Your task to perform on an android device: Go to notification settings Image 0: 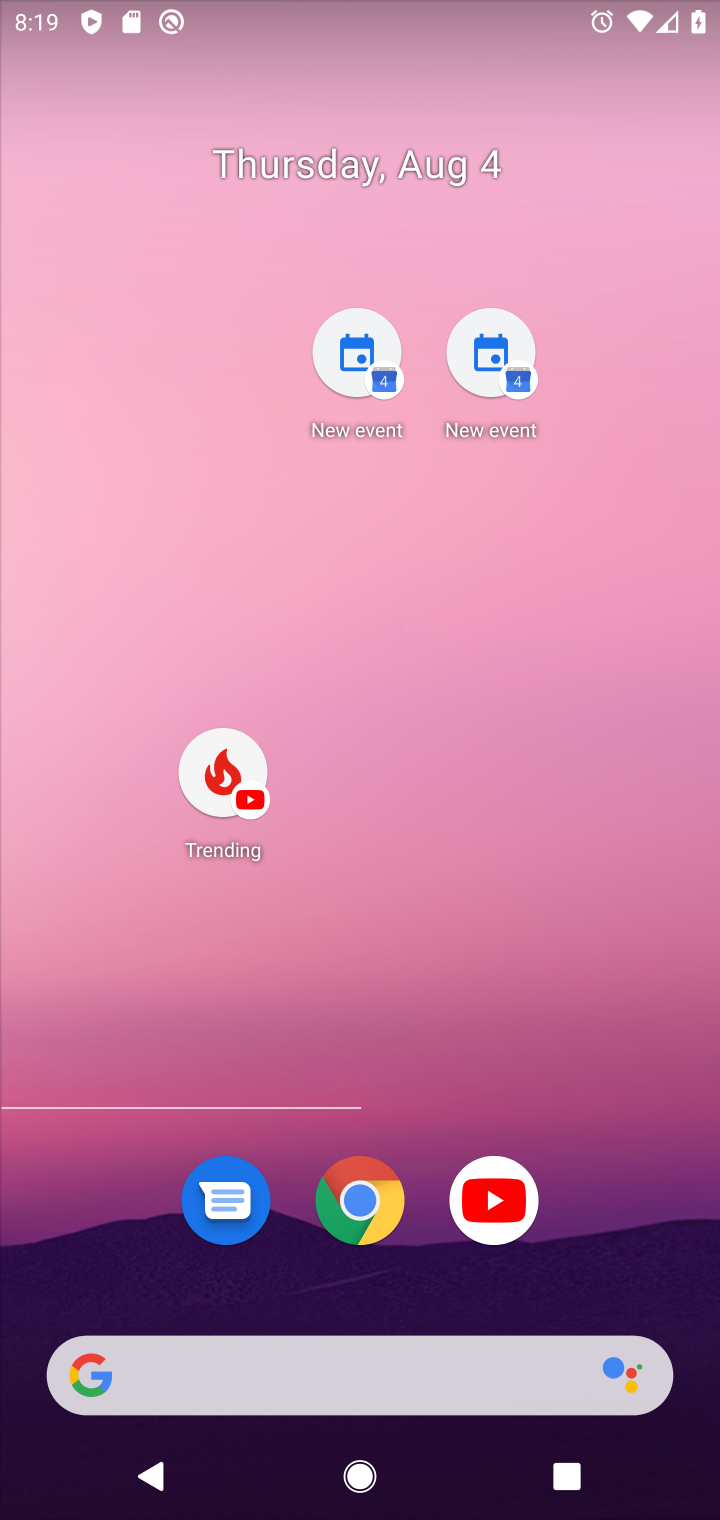
Step 0: press back button
Your task to perform on an android device: Go to notification settings Image 1: 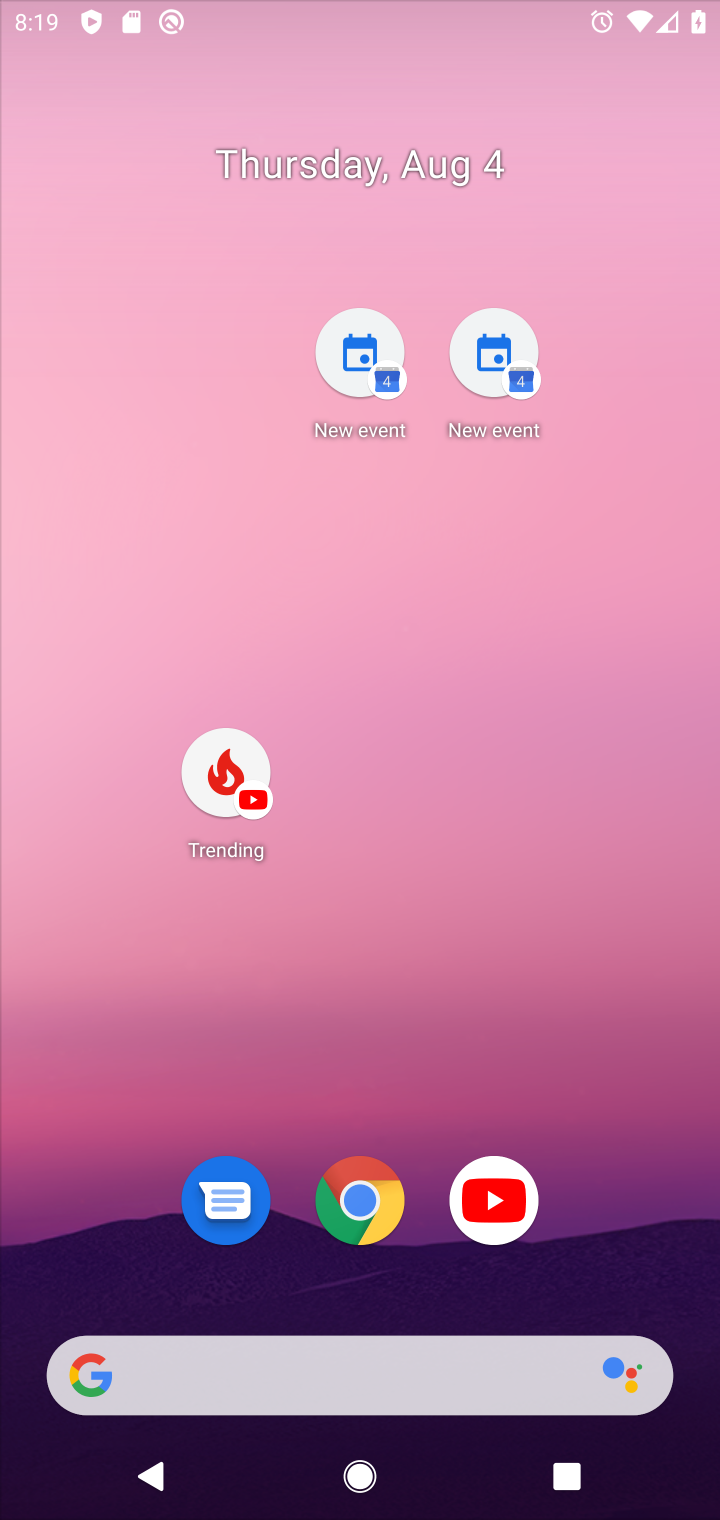
Step 1: press back button
Your task to perform on an android device: Go to notification settings Image 2: 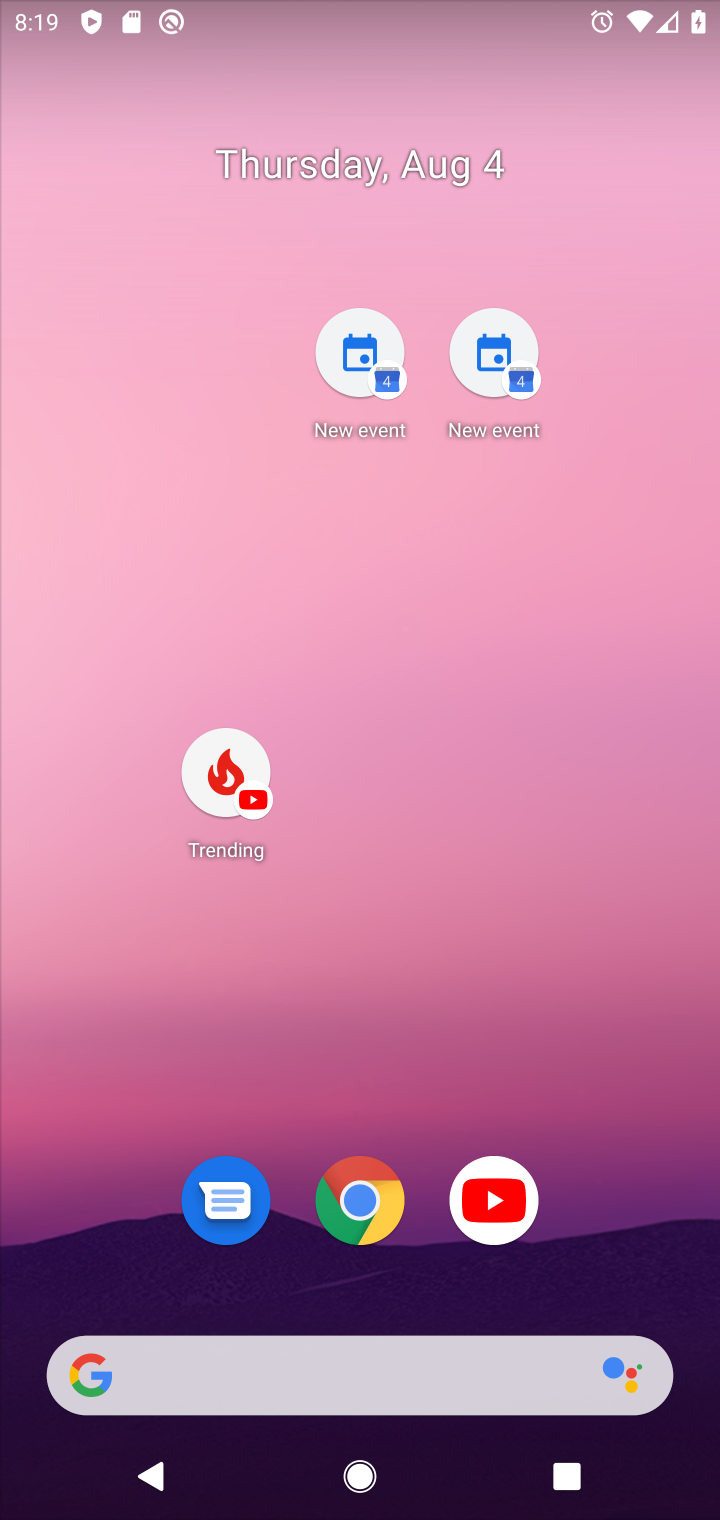
Step 2: press home button
Your task to perform on an android device: Go to notification settings Image 3: 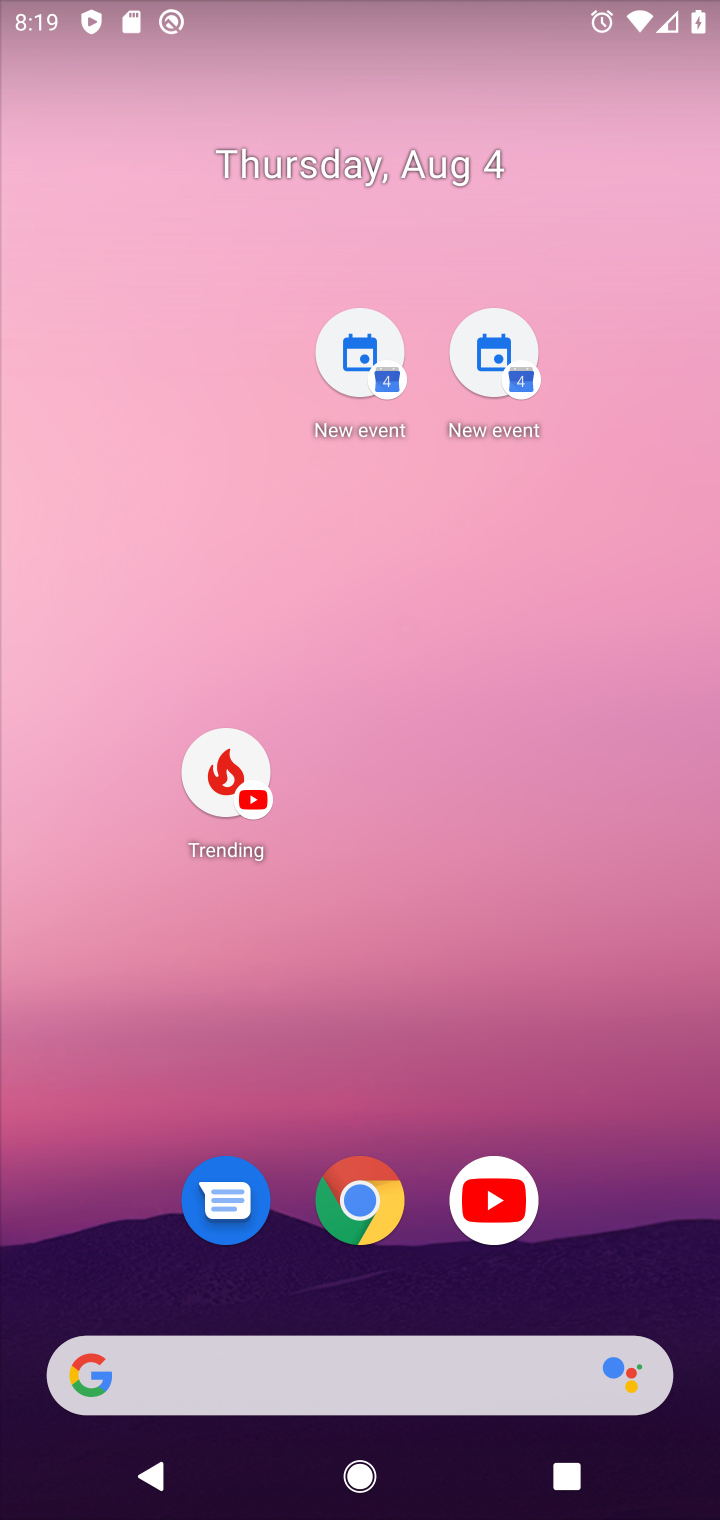
Step 3: click (301, 236)
Your task to perform on an android device: Go to notification settings Image 4: 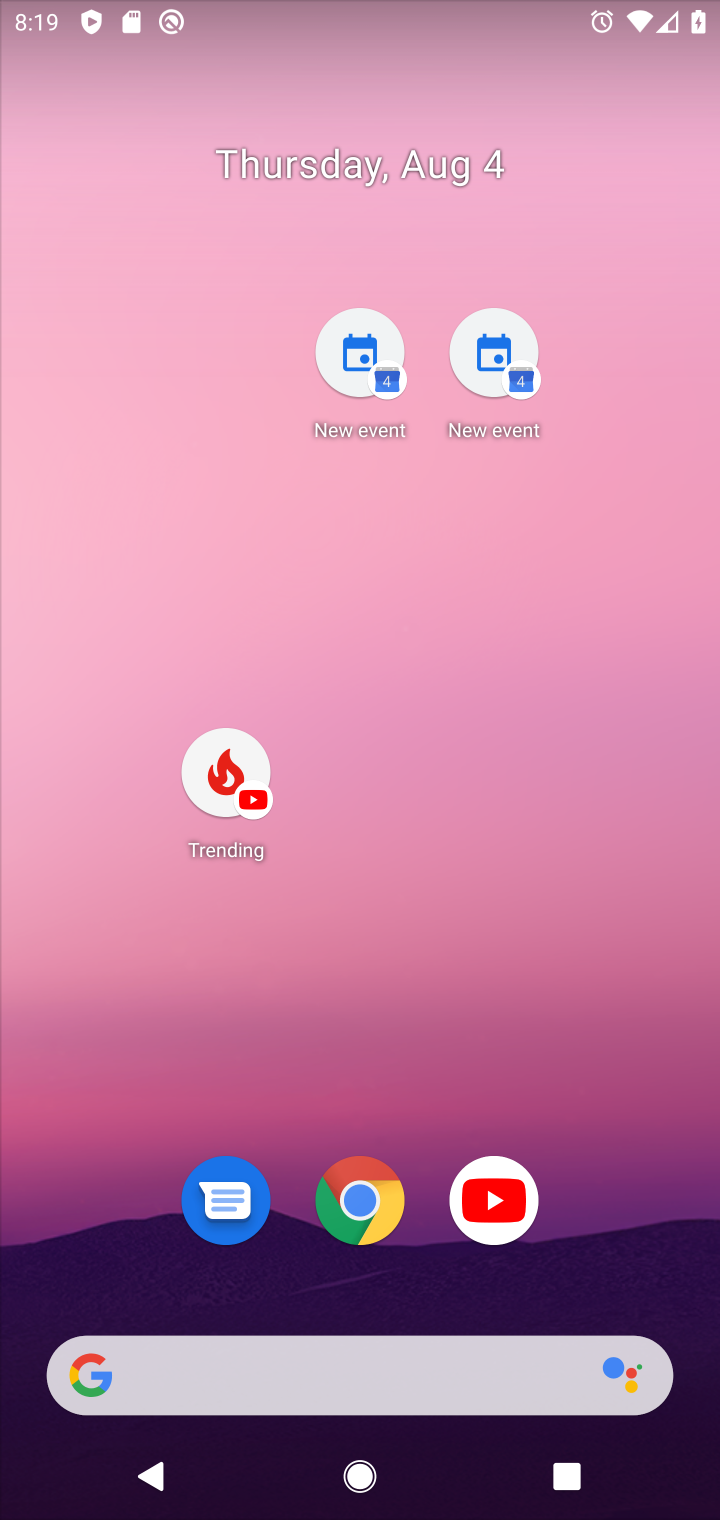
Step 4: click (238, 510)
Your task to perform on an android device: Go to notification settings Image 5: 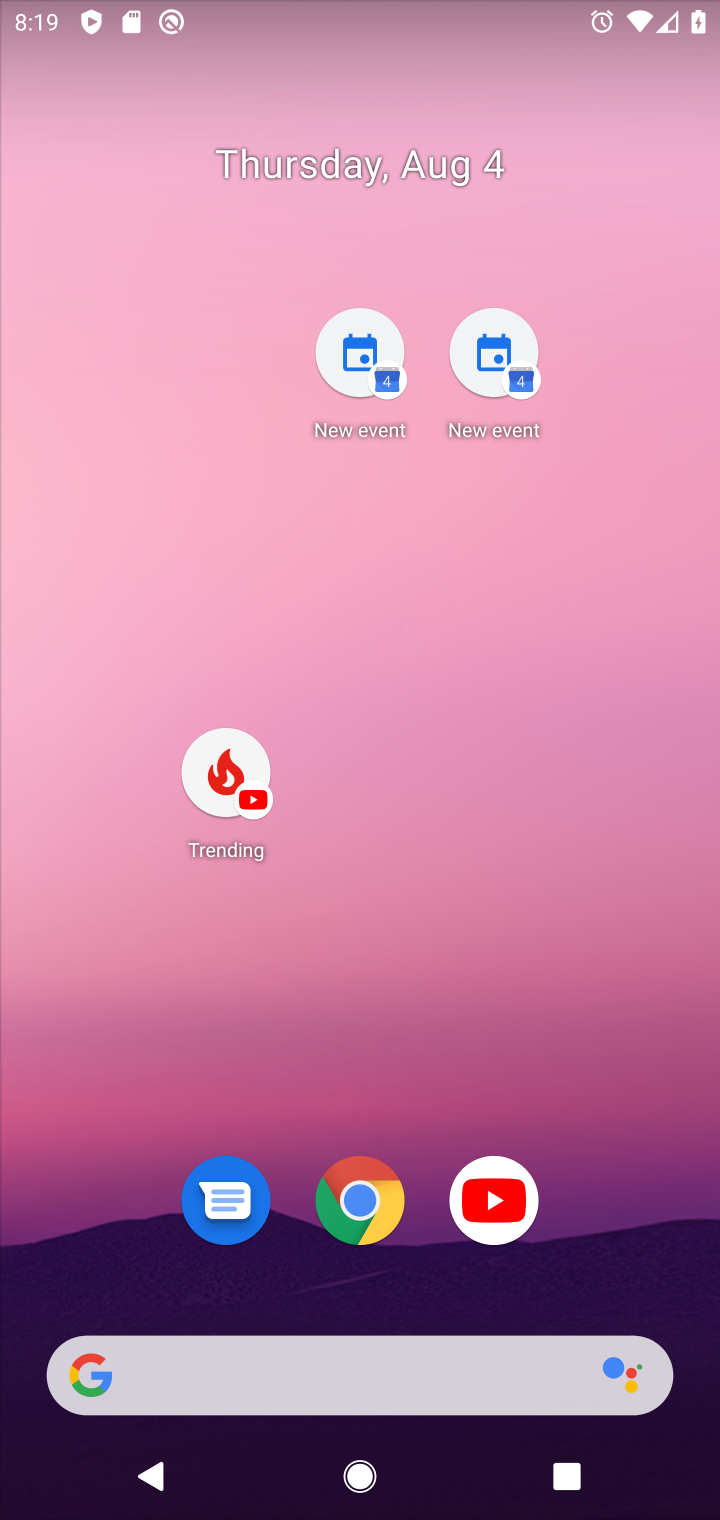
Step 5: drag from (456, 1293) to (329, 403)
Your task to perform on an android device: Go to notification settings Image 6: 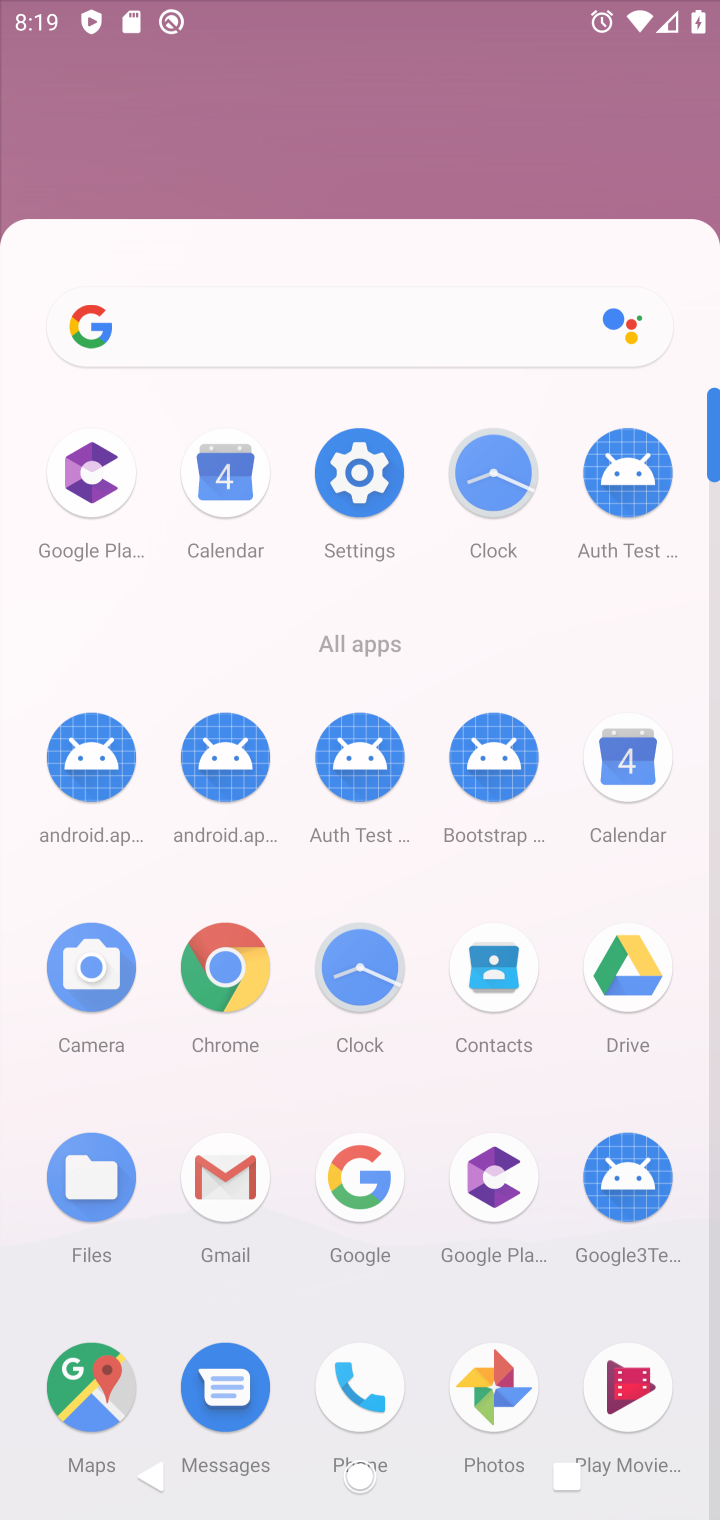
Step 6: drag from (449, 1393) to (166, 181)
Your task to perform on an android device: Go to notification settings Image 7: 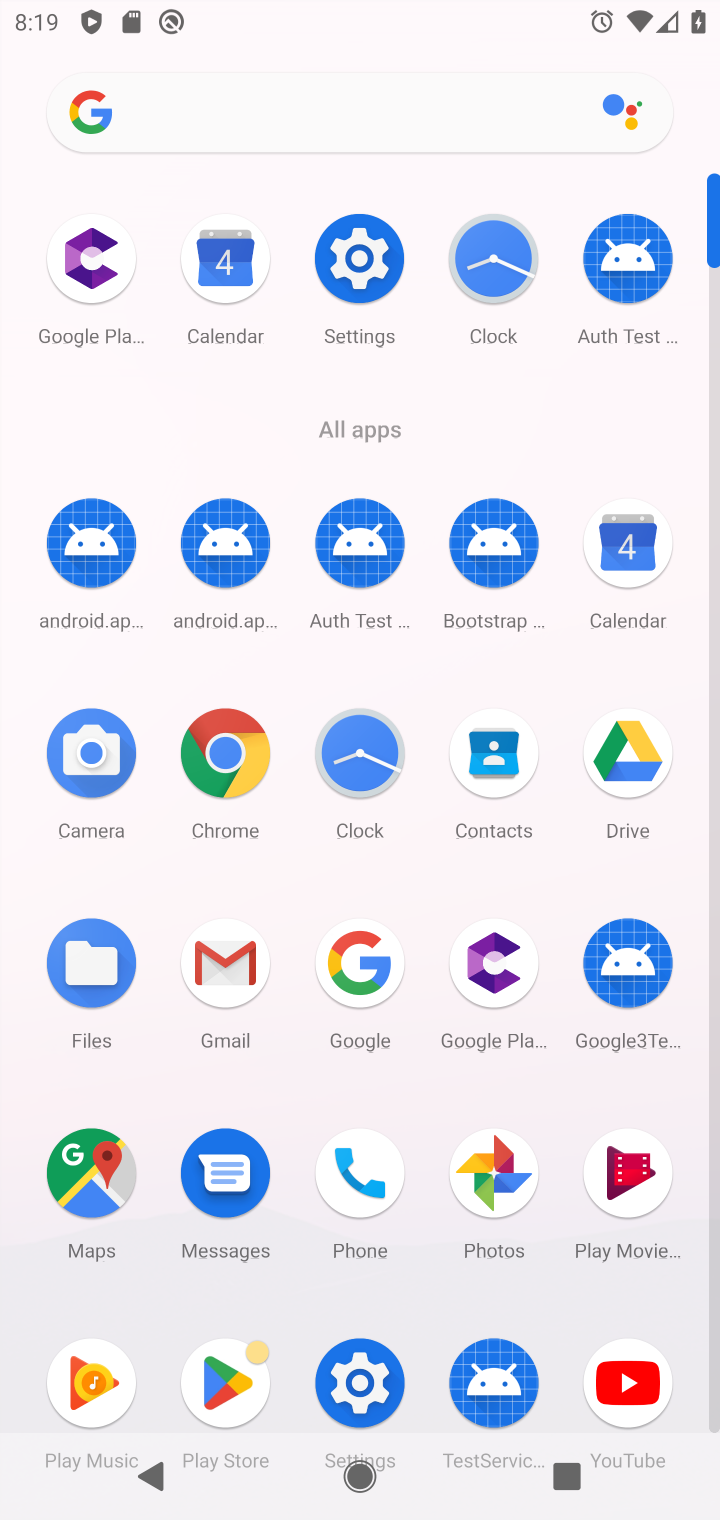
Step 7: click (357, 1376)
Your task to perform on an android device: Go to notification settings Image 8: 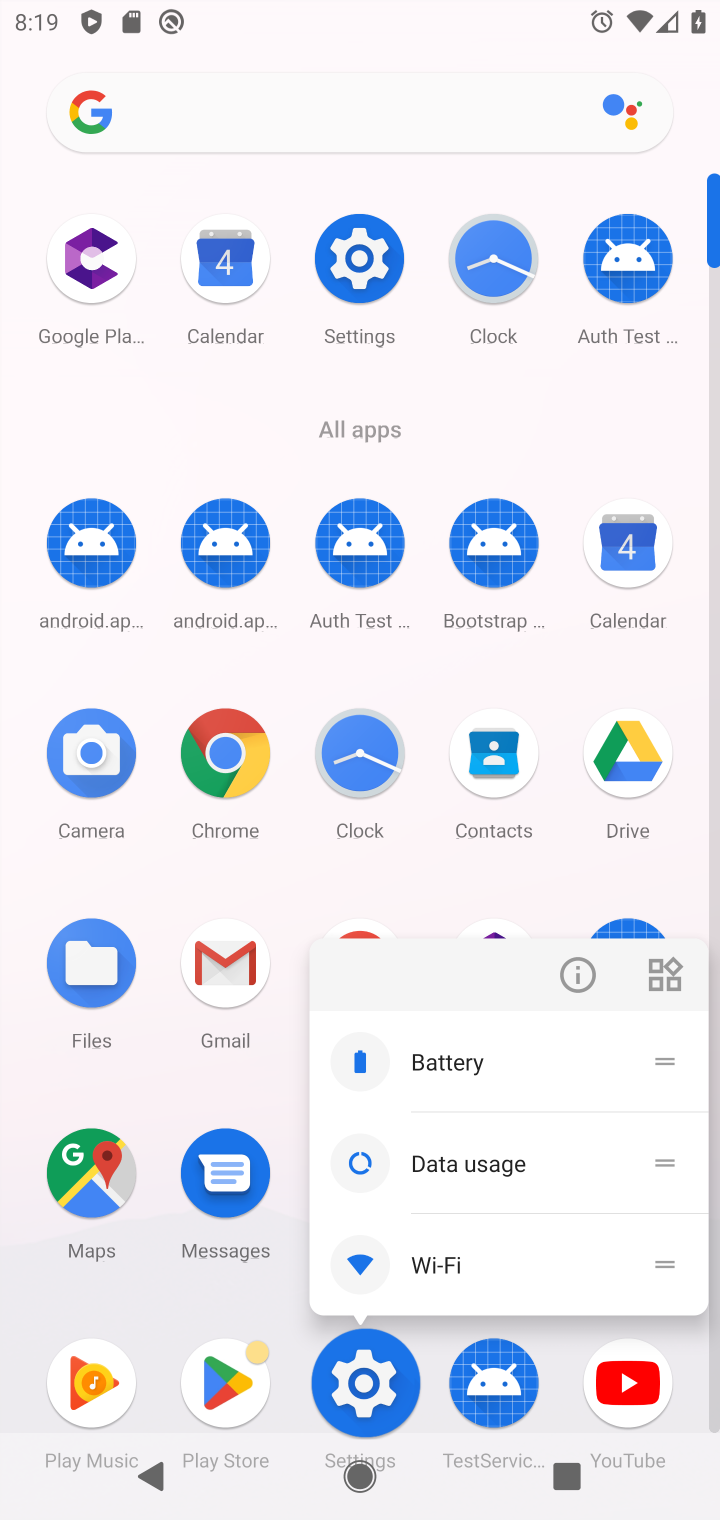
Step 8: click (363, 1376)
Your task to perform on an android device: Go to notification settings Image 9: 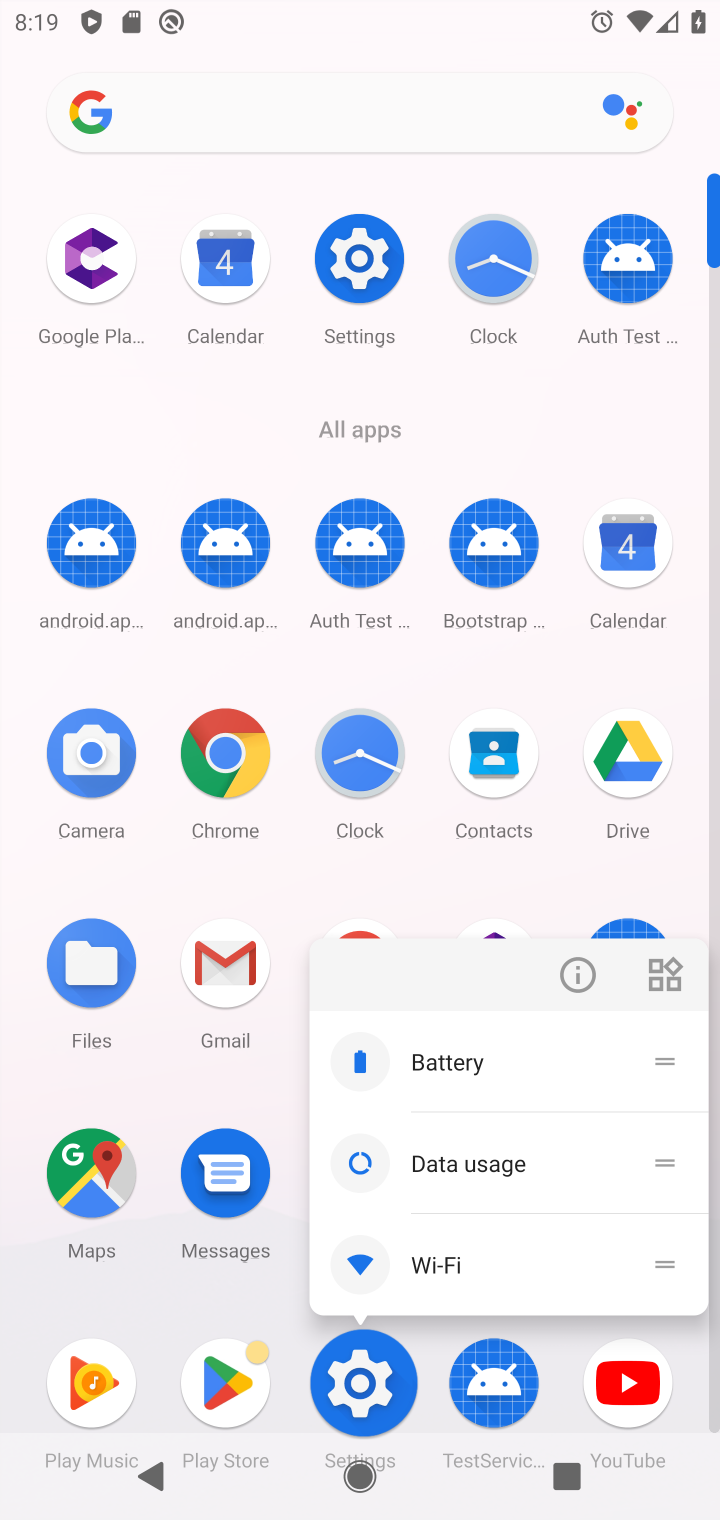
Step 9: click (370, 1383)
Your task to perform on an android device: Go to notification settings Image 10: 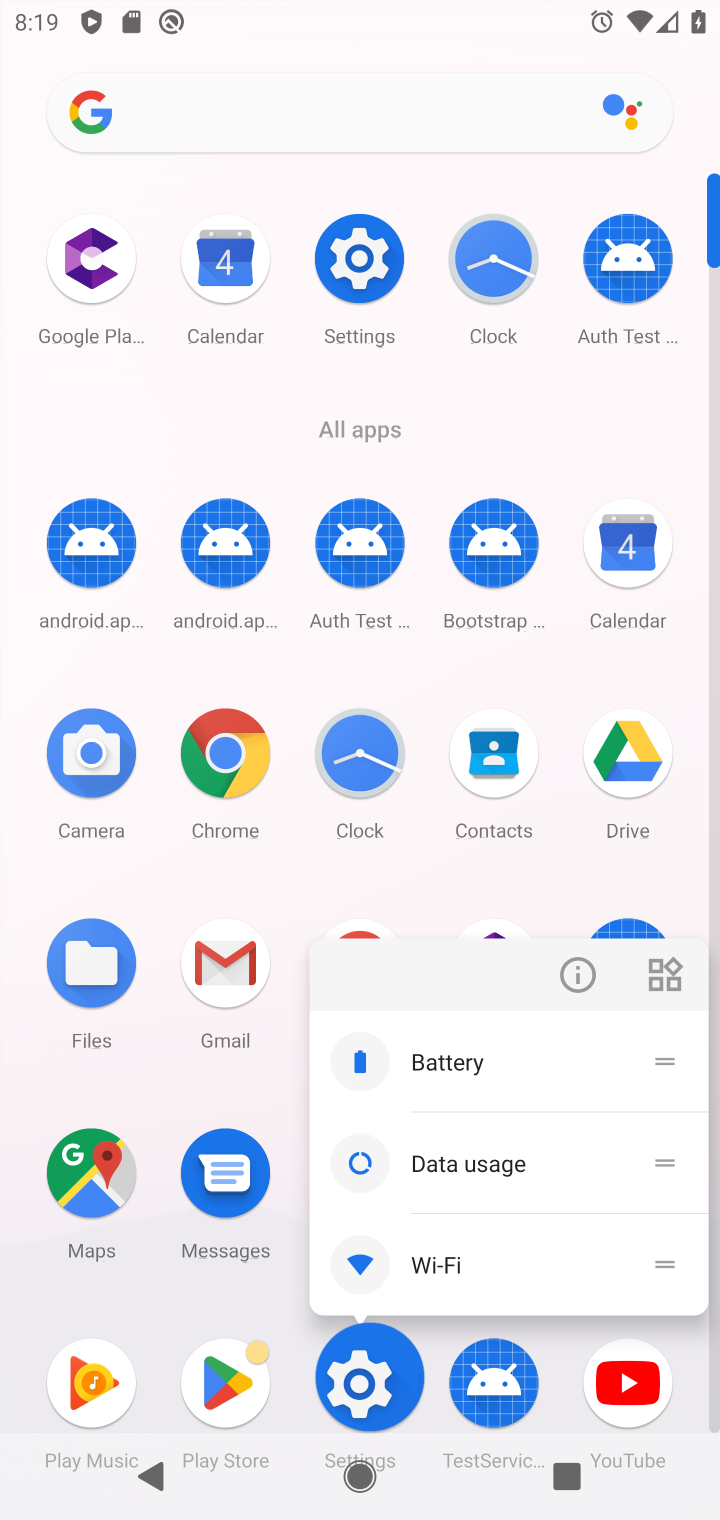
Step 10: click (381, 1347)
Your task to perform on an android device: Go to notification settings Image 11: 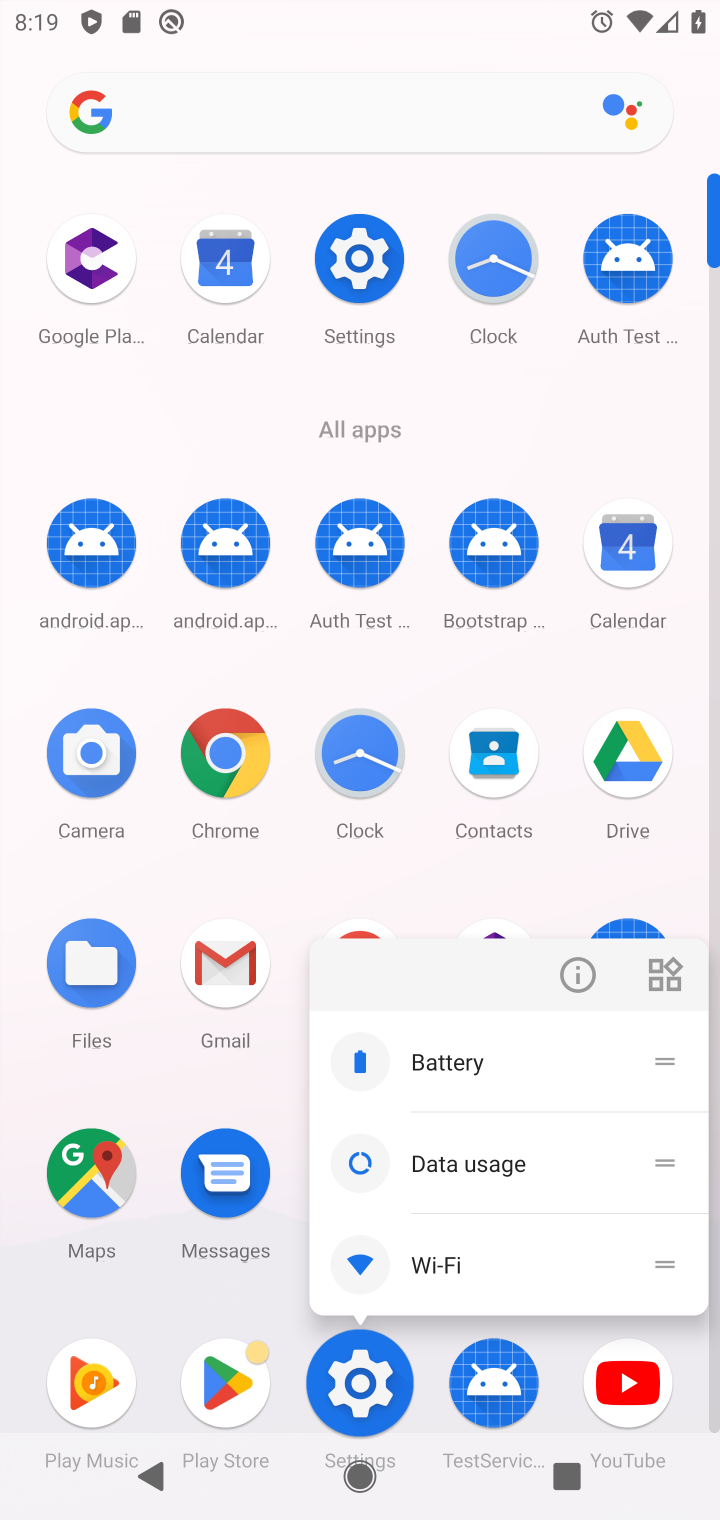
Step 11: click (385, 1345)
Your task to perform on an android device: Go to notification settings Image 12: 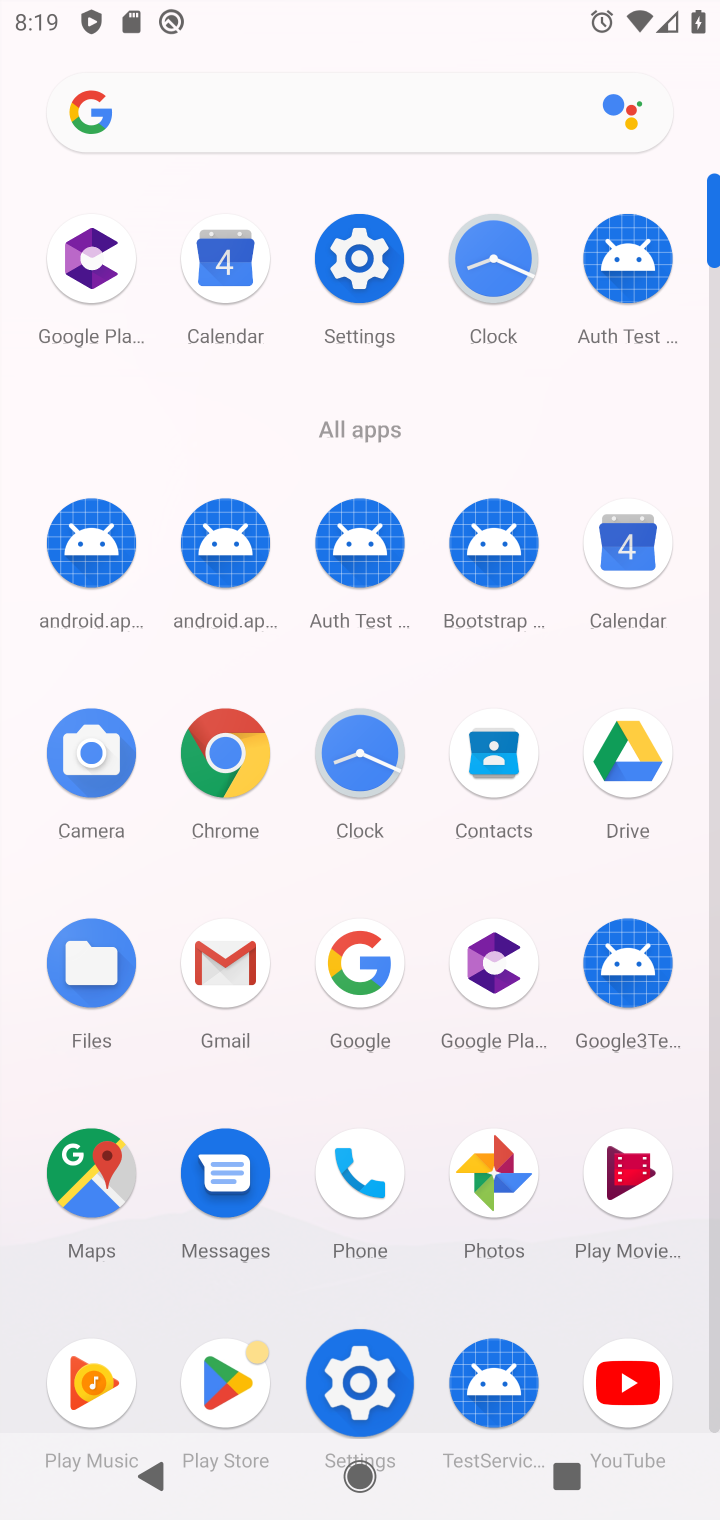
Step 12: click (389, 1370)
Your task to perform on an android device: Go to notification settings Image 13: 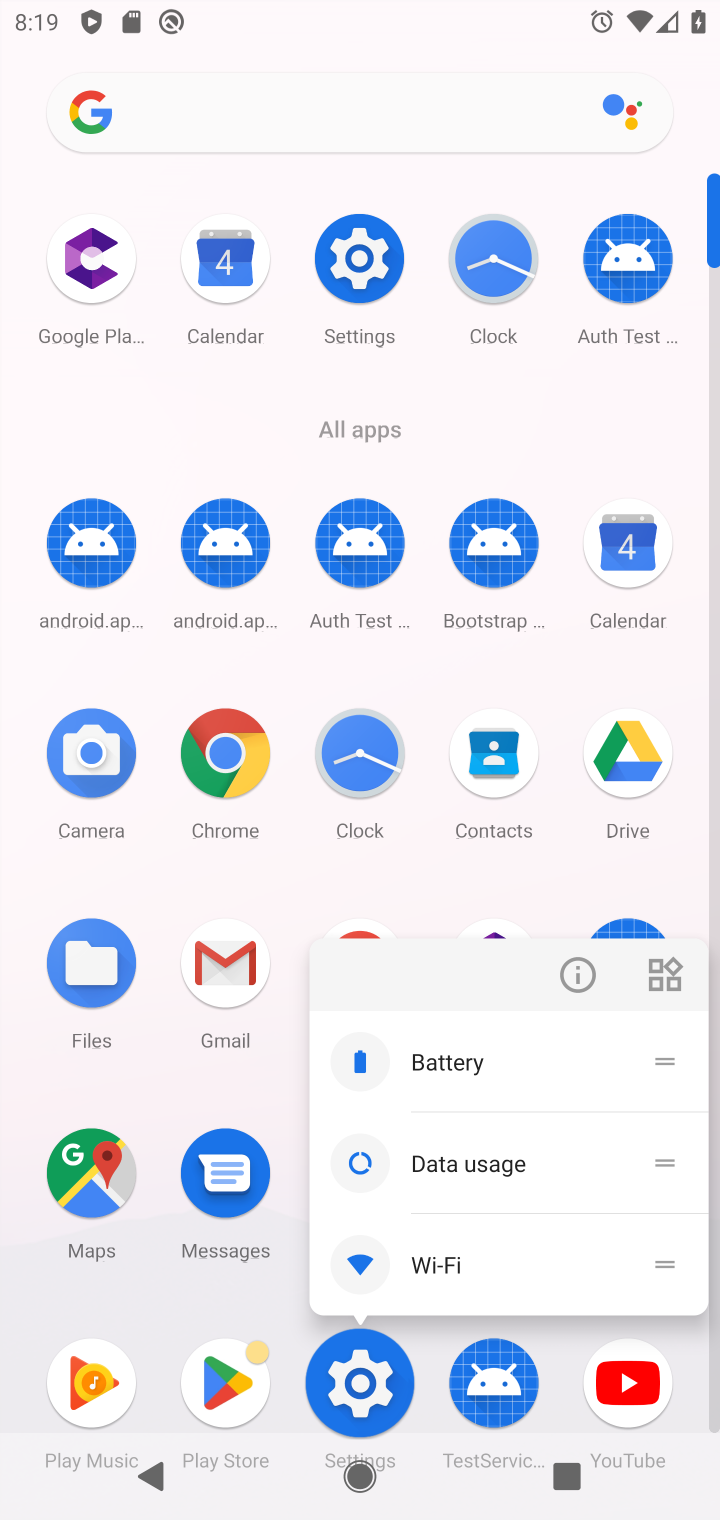
Step 13: click (394, 1373)
Your task to perform on an android device: Go to notification settings Image 14: 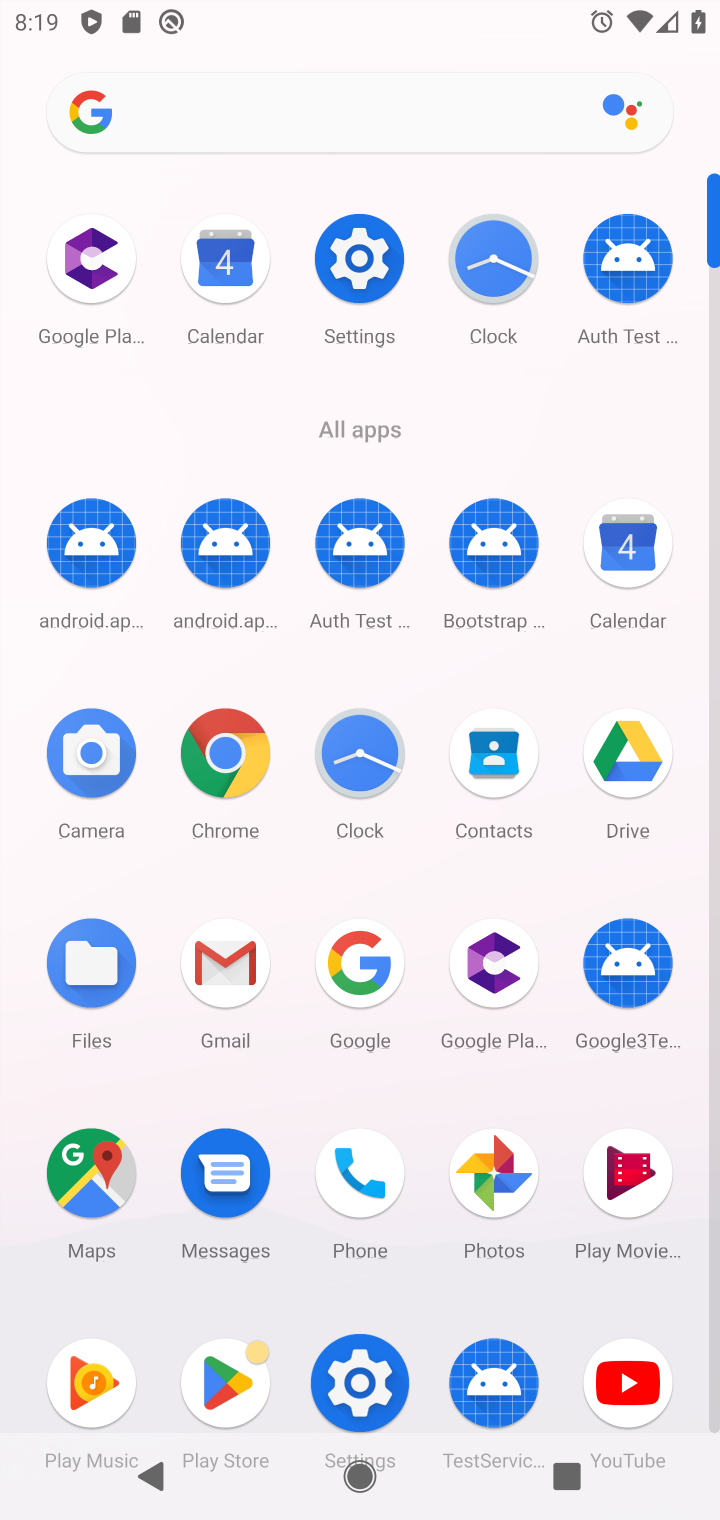
Step 14: click (398, 1373)
Your task to perform on an android device: Go to notification settings Image 15: 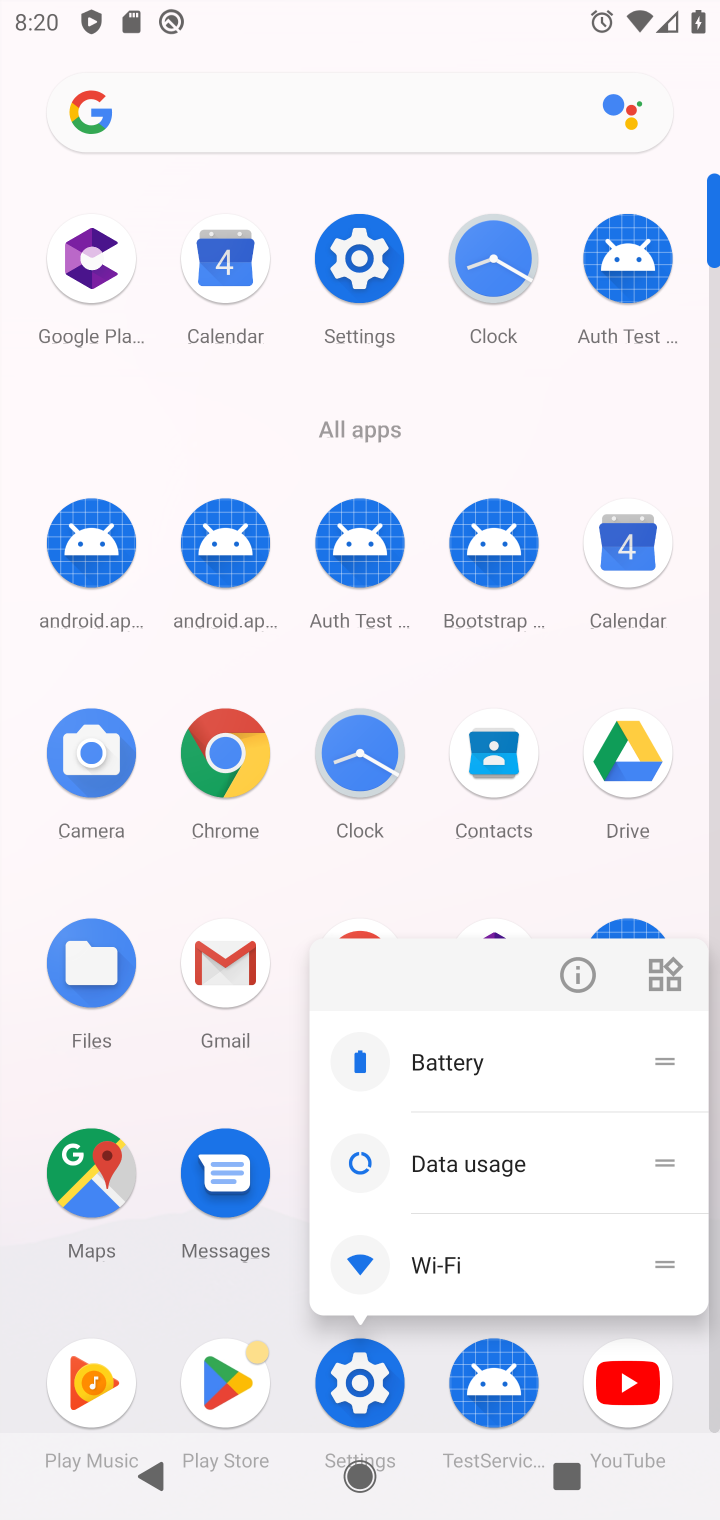
Step 15: click (392, 1356)
Your task to perform on an android device: Go to notification settings Image 16: 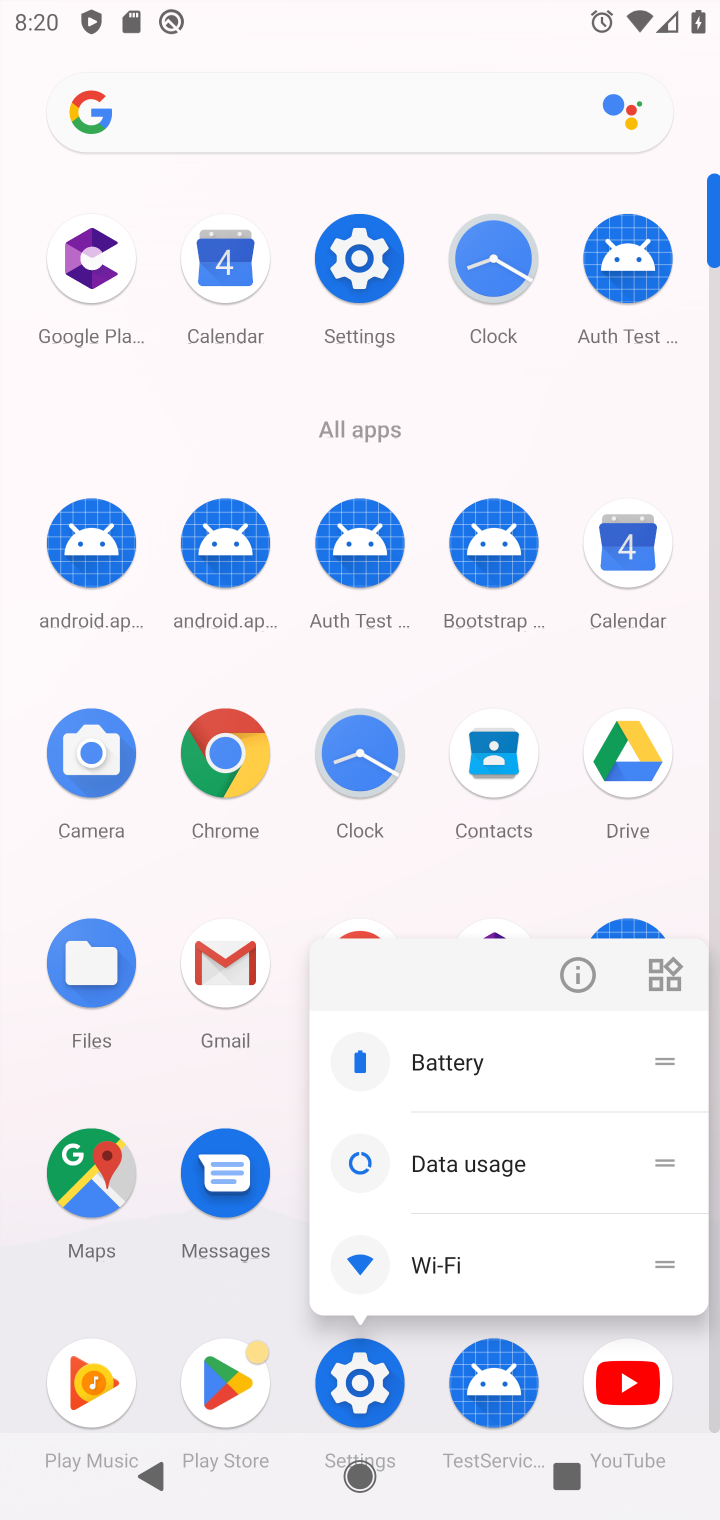
Step 16: click (429, 1054)
Your task to perform on an android device: Go to notification settings Image 17: 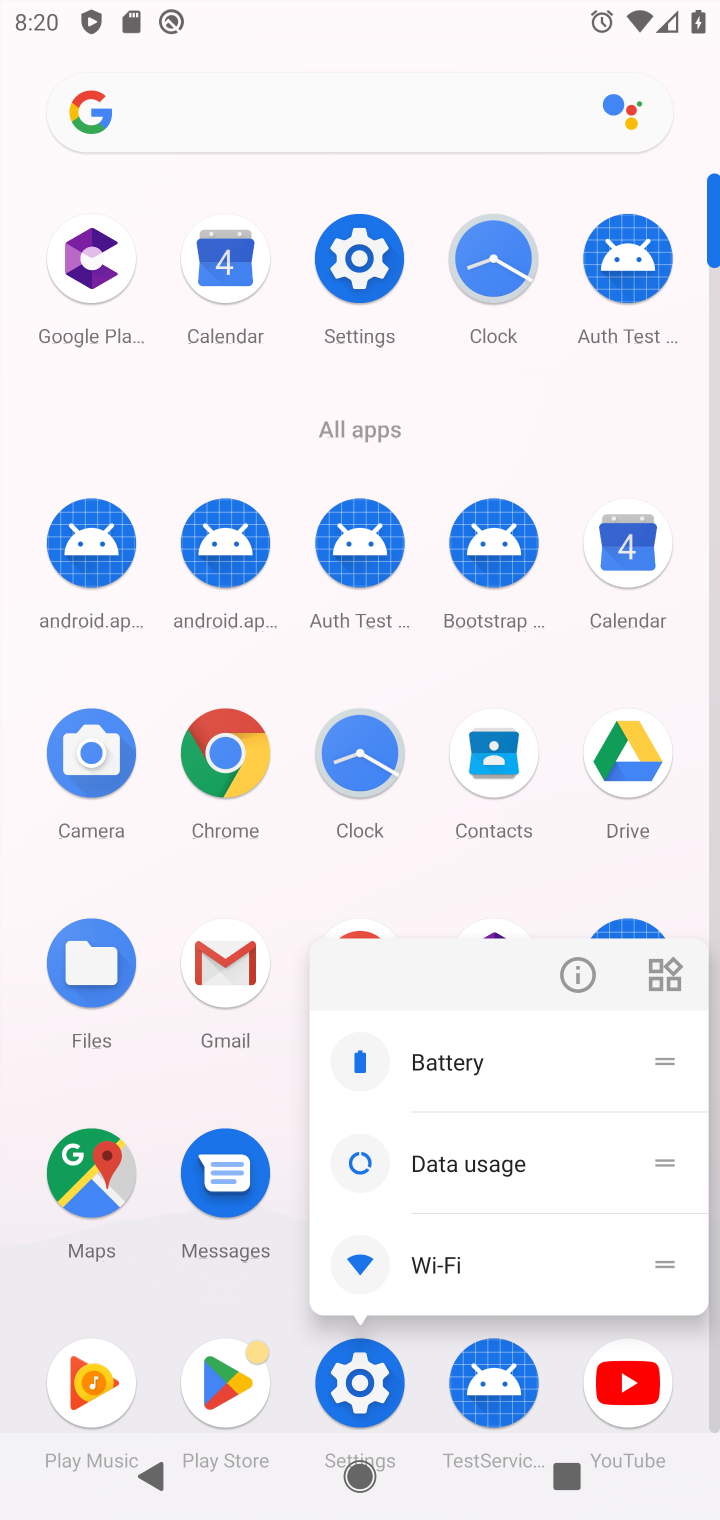
Step 17: click (446, 1065)
Your task to perform on an android device: Go to notification settings Image 18: 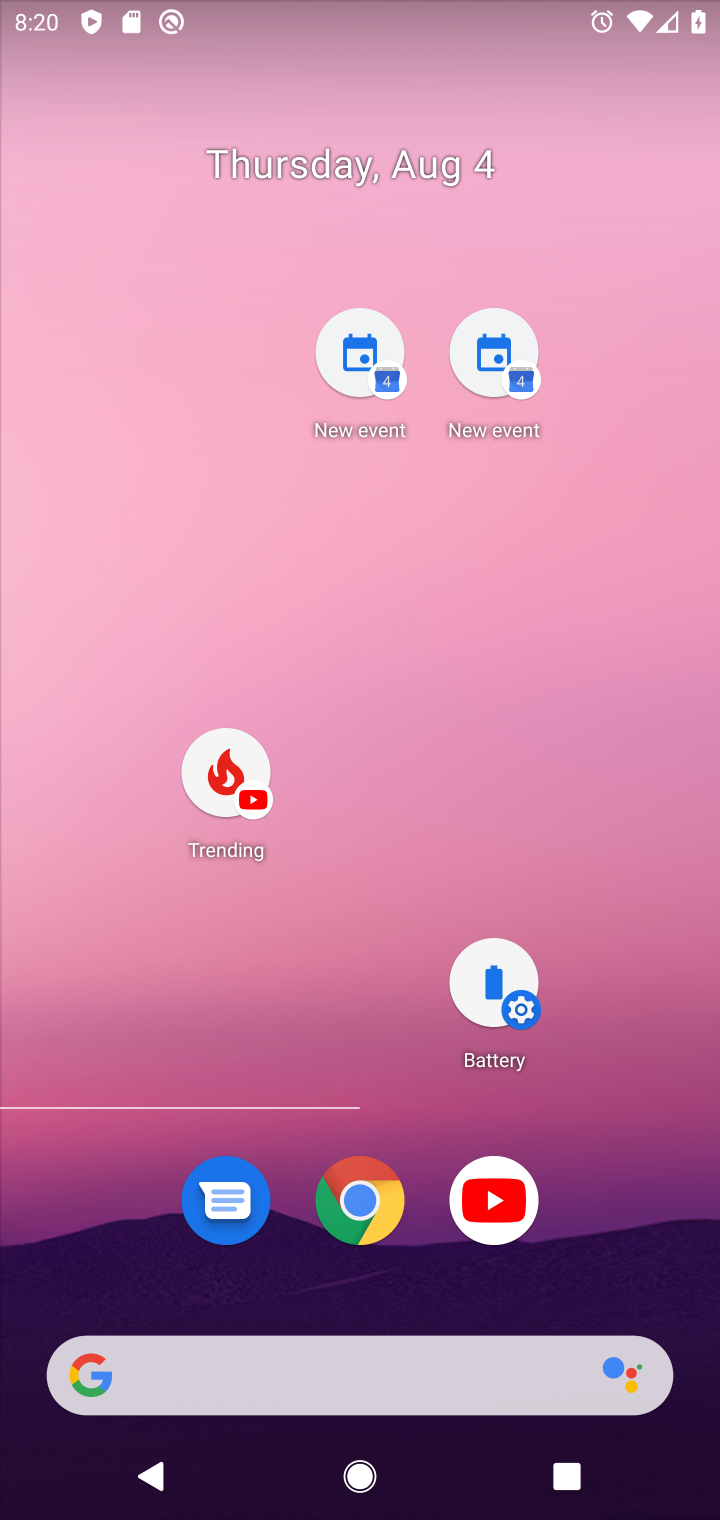
Step 18: drag from (444, 1423) to (398, 257)
Your task to perform on an android device: Go to notification settings Image 19: 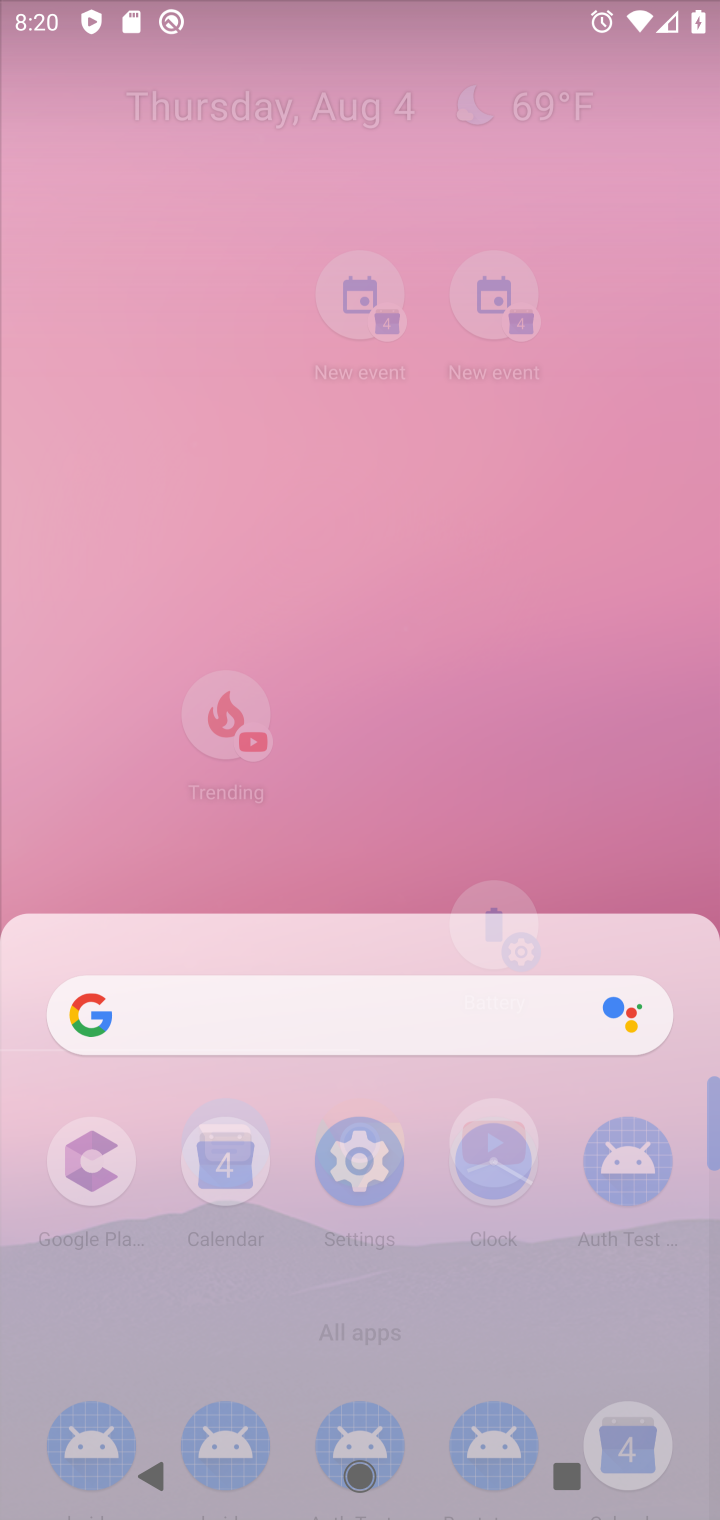
Step 19: click (359, 237)
Your task to perform on an android device: Go to notification settings Image 20: 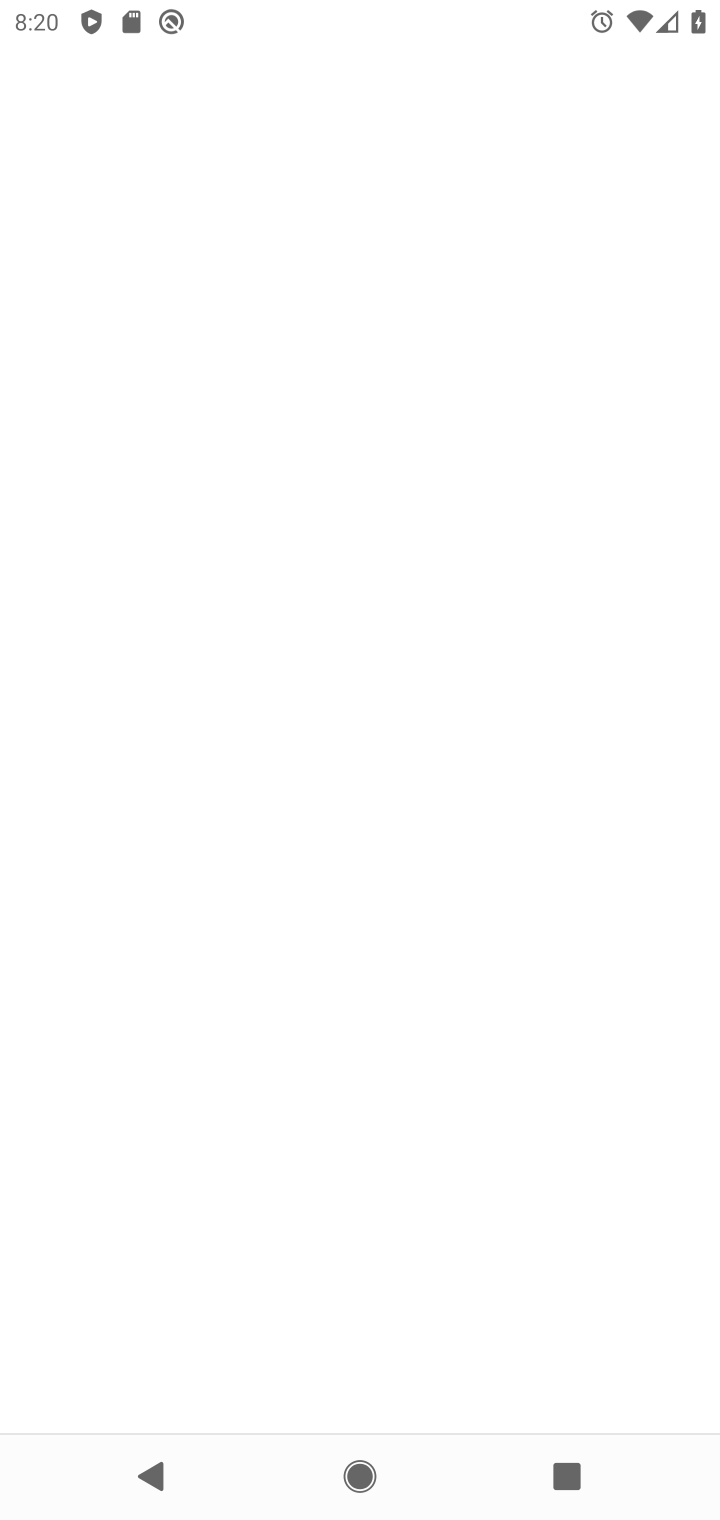
Step 20: click (351, 1373)
Your task to perform on an android device: Go to notification settings Image 21: 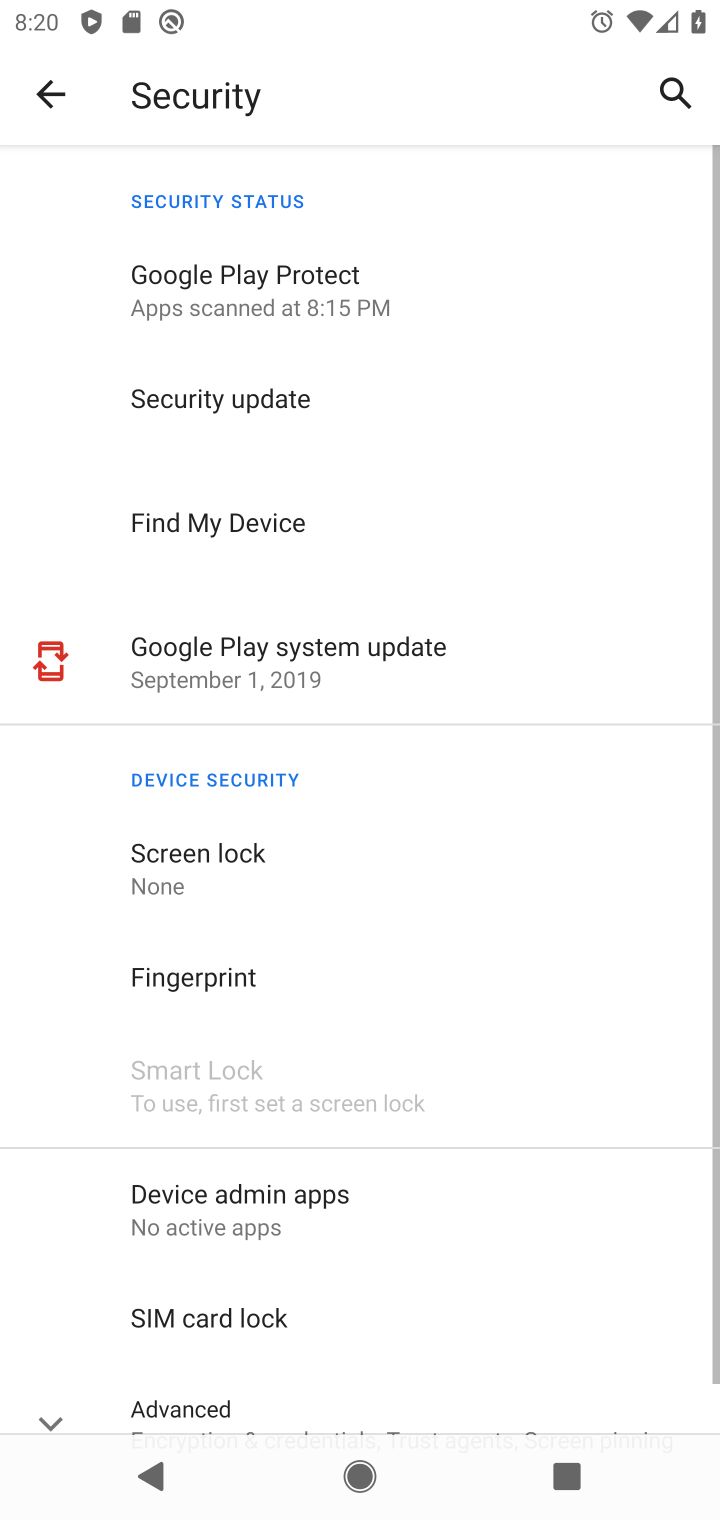
Step 21: click (47, 91)
Your task to perform on an android device: Go to notification settings Image 22: 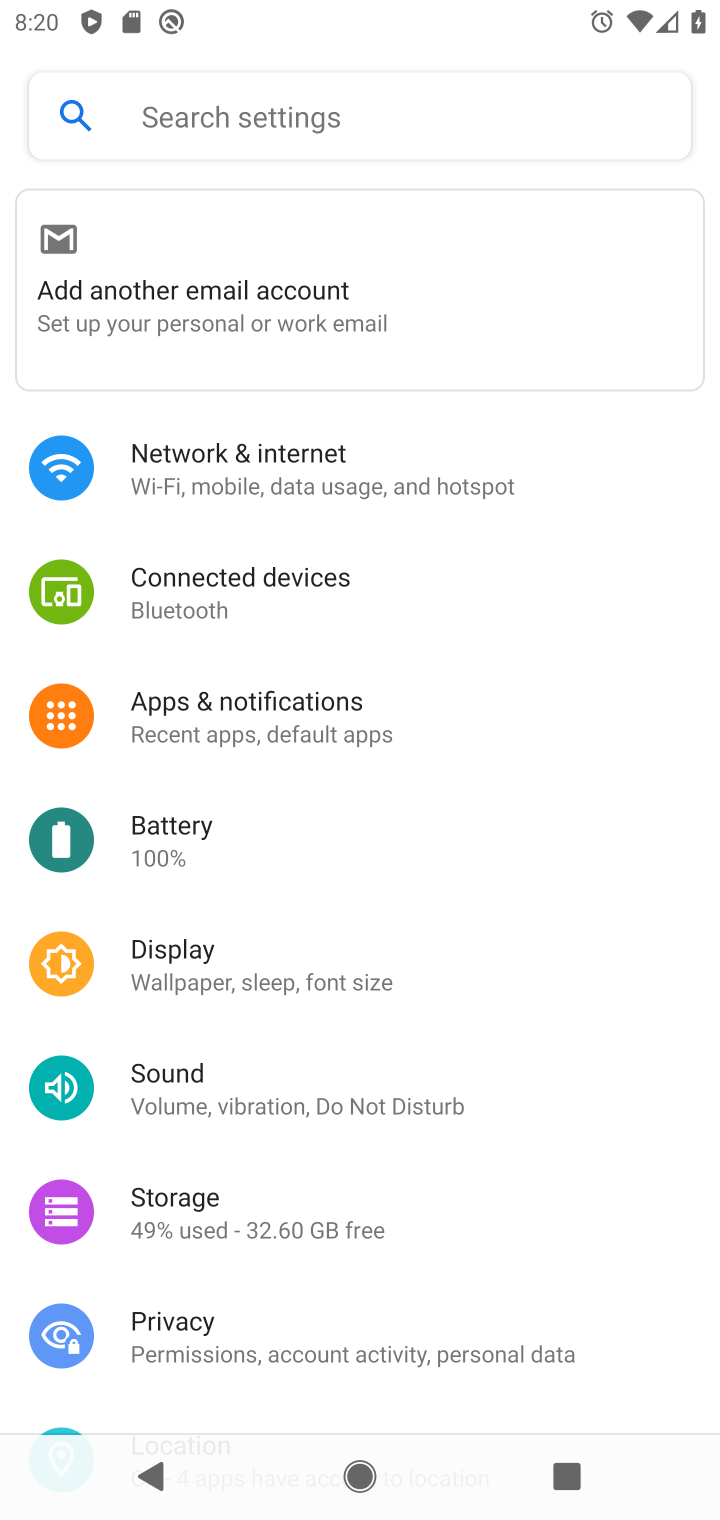
Step 22: click (216, 697)
Your task to perform on an android device: Go to notification settings Image 23: 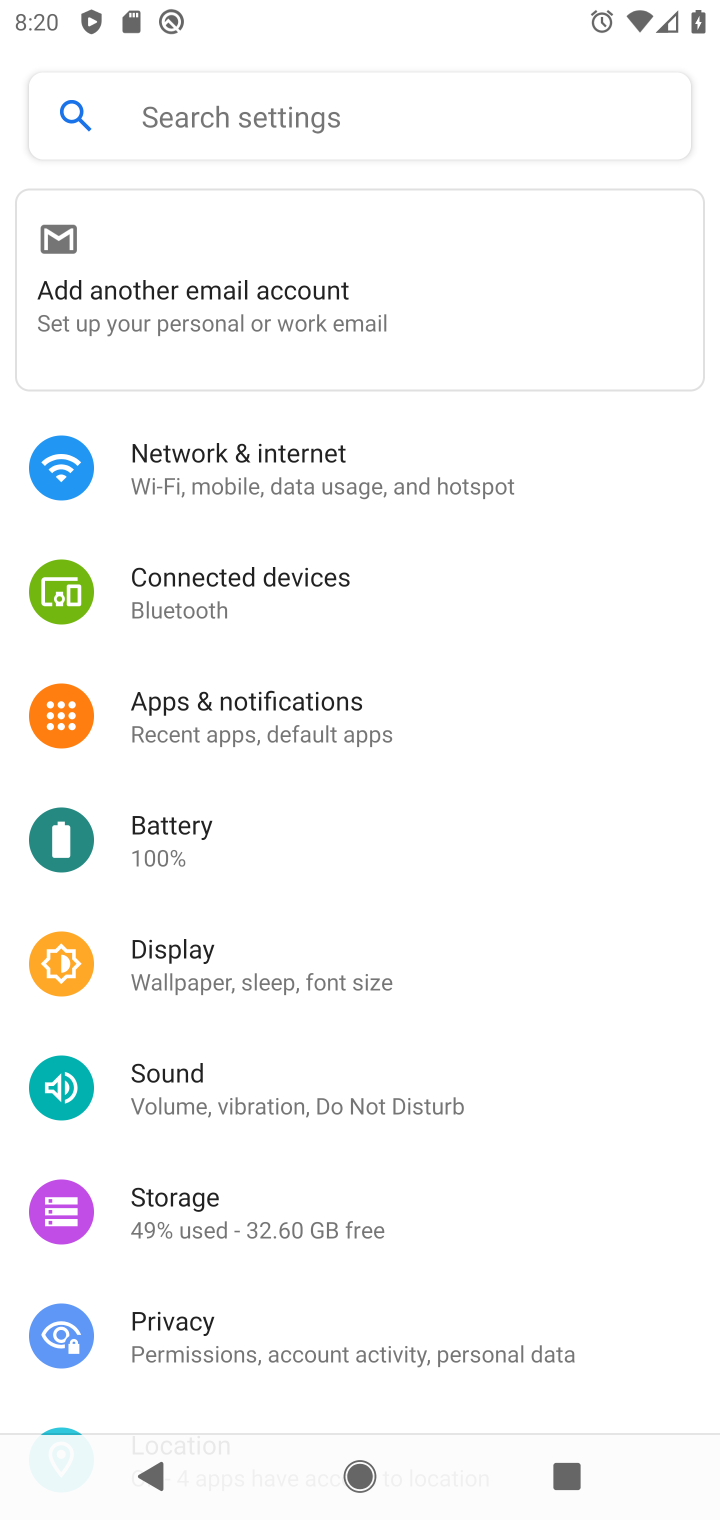
Step 23: click (216, 697)
Your task to perform on an android device: Go to notification settings Image 24: 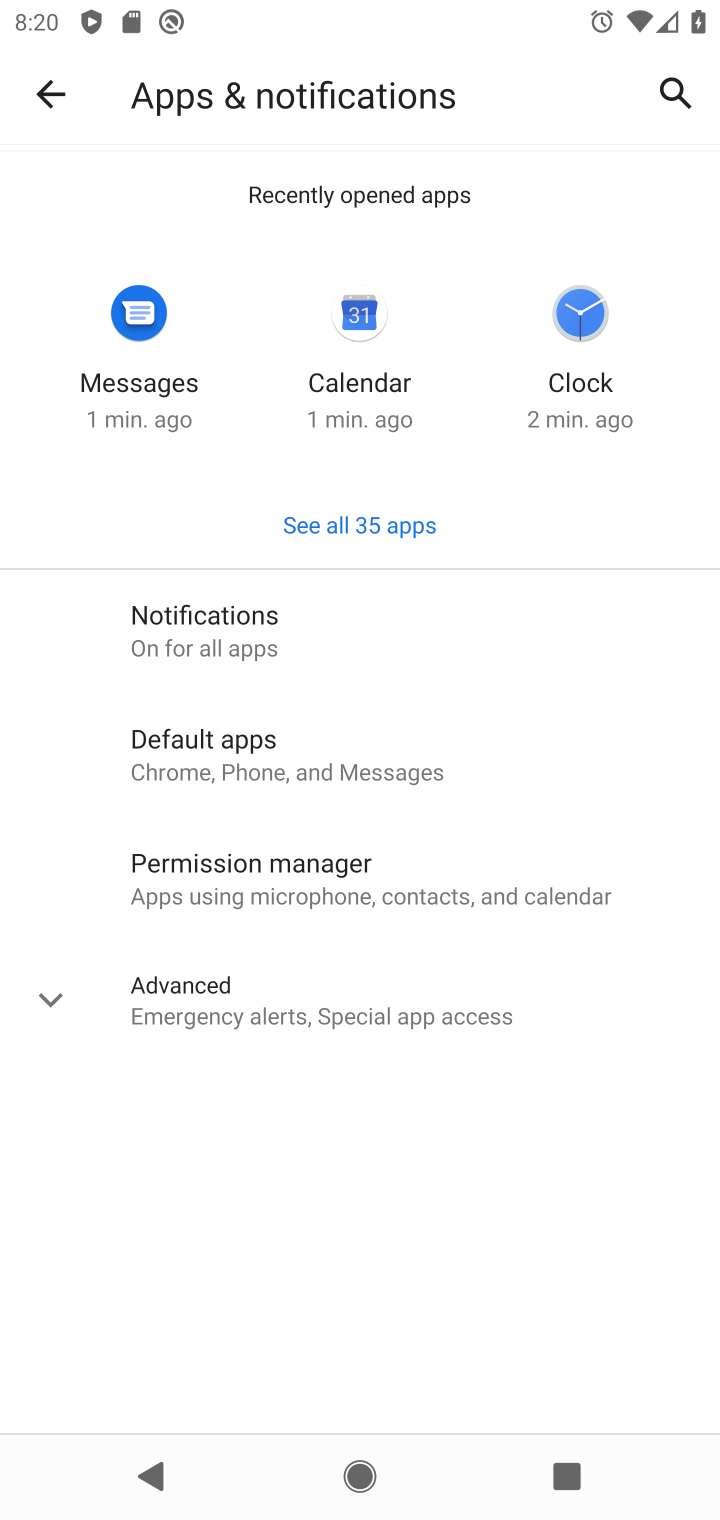
Step 24: click (221, 647)
Your task to perform on an android device: Go to notification settings Image 25: 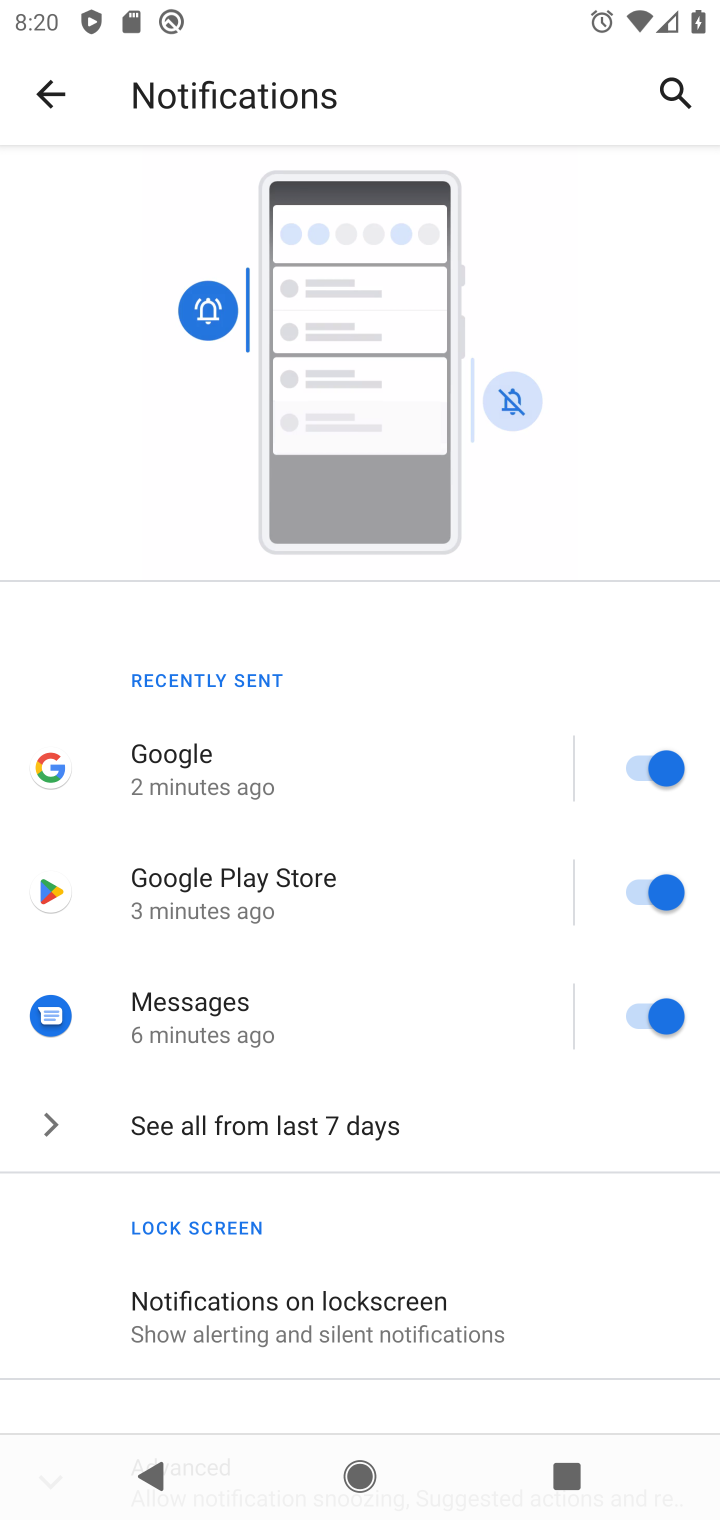
Step 25: task complete